Your task to perform on an android device: Show the shopping cart on amazon. Add "logitech g502" to the cart on amazon, then select checkout. Image 0: 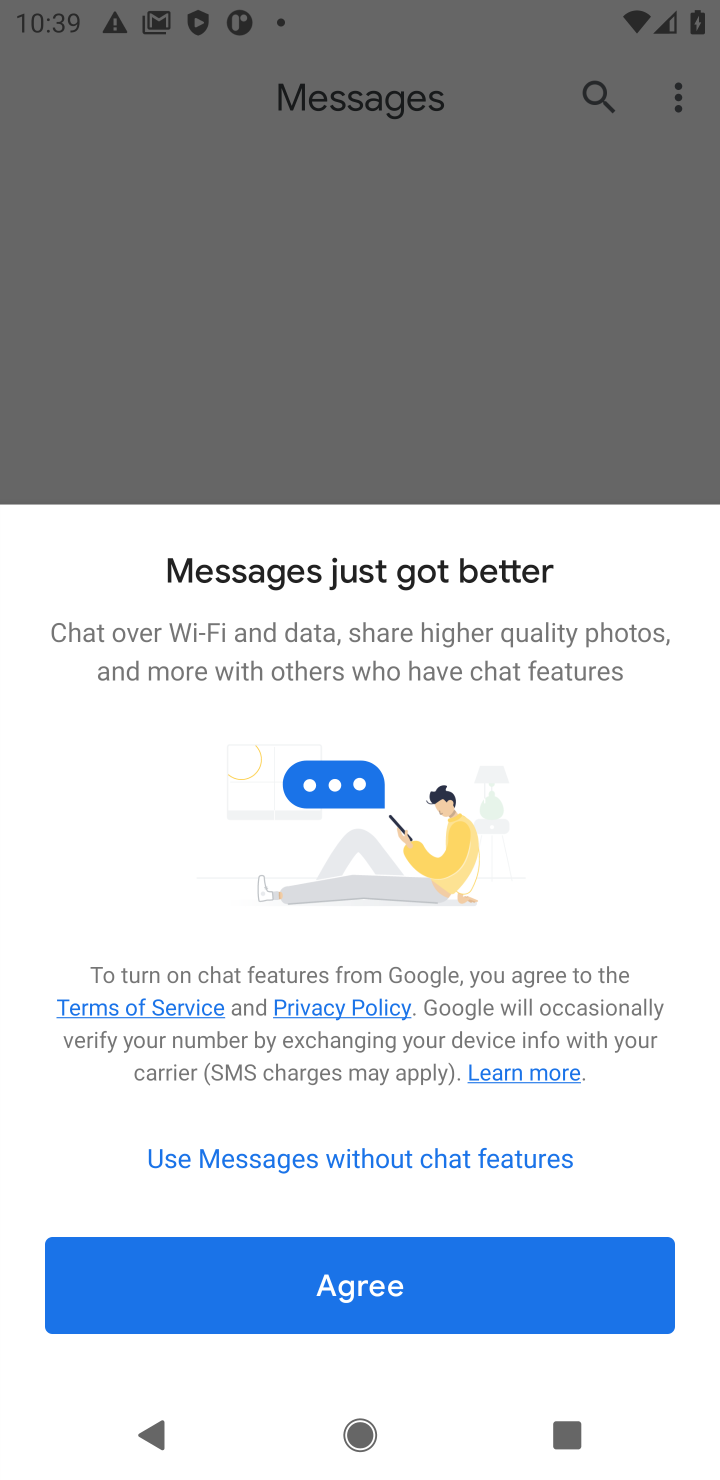
Step 0: press home button
Your task to perform on an android device: Show the shopping cart on amazon. Add "logitech g502" to the cart on amazon, then select checkout. Image 1: 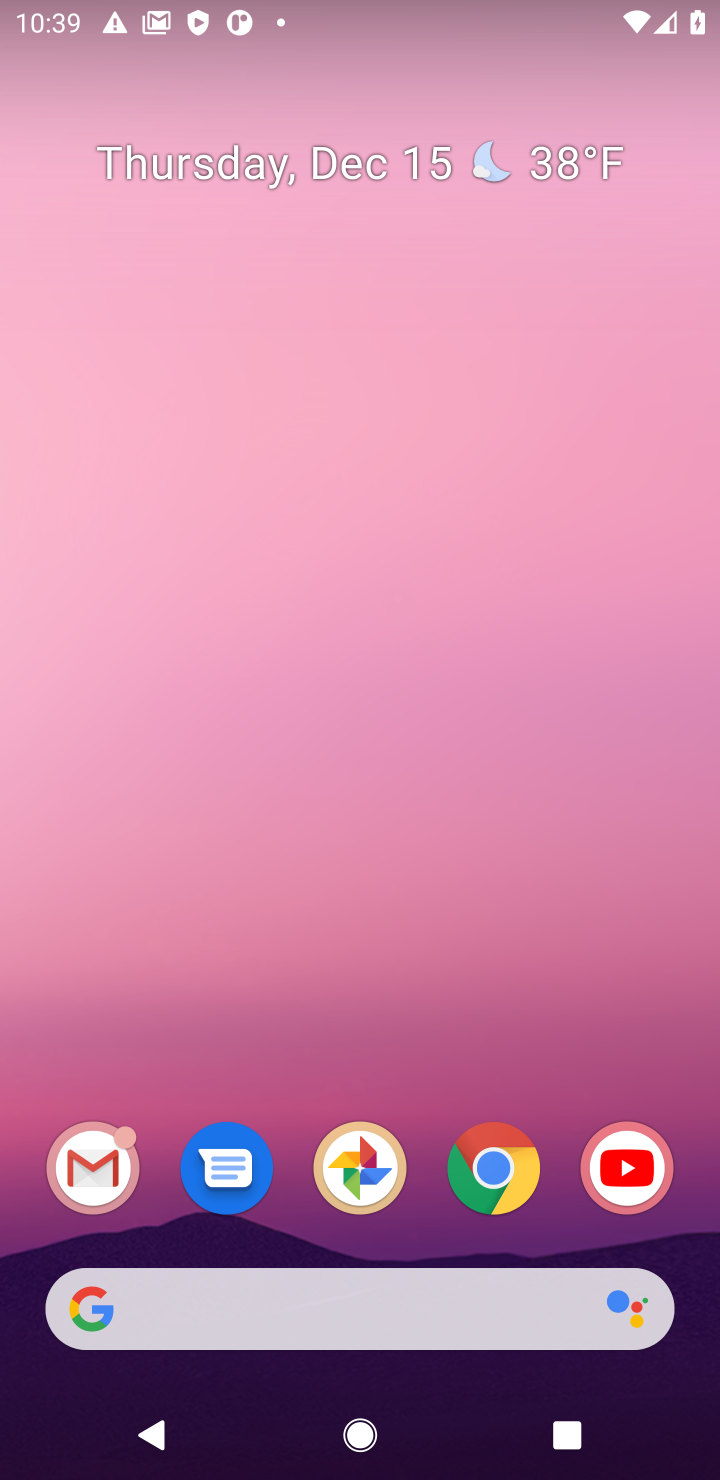
Step 1: click (488, 1182)
Your task to perform on an android device: Show the shopping cart on amazon. Add "logitech g502" to the cart on amazon, then select checkout. Image 2: 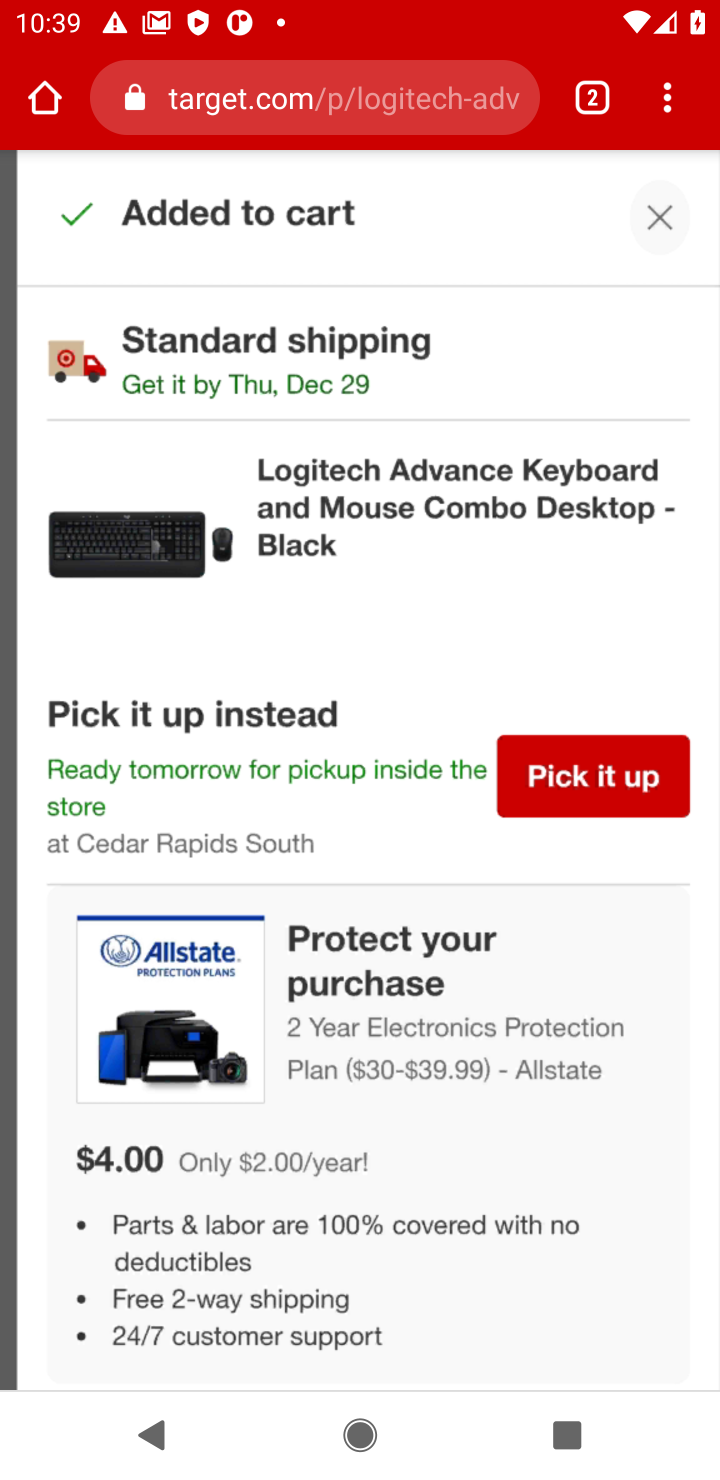
Step 2: click (381, 96)
Your task to perform on an android device: Show the shopping cart on amazon. Add "logitech g502" to the cart on amazon, then select checkout. Image 3: 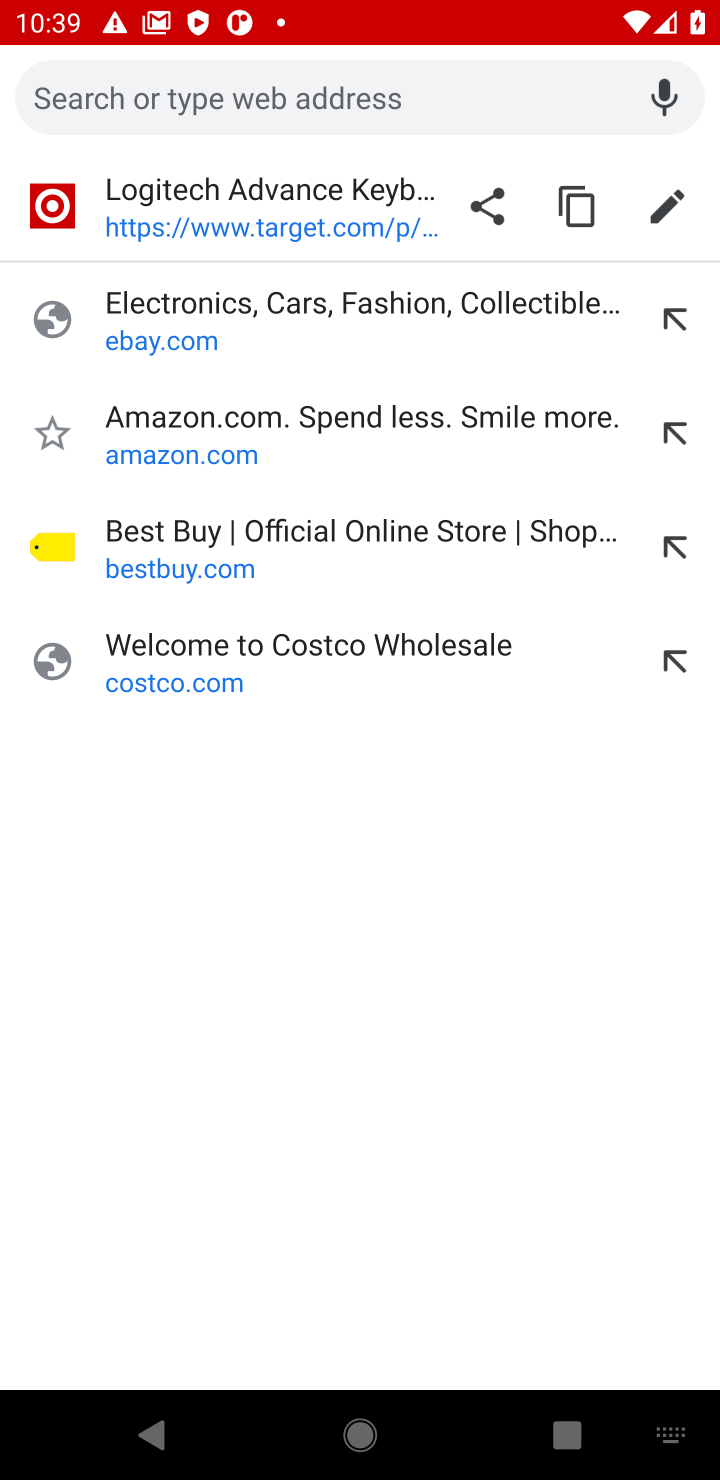
Step 3: click (267, 434)
Your task to perform on an android device: Show the shopping cart on amazon. Add "logitech g502" to the cart on amazon, then select checkout. Image 4: 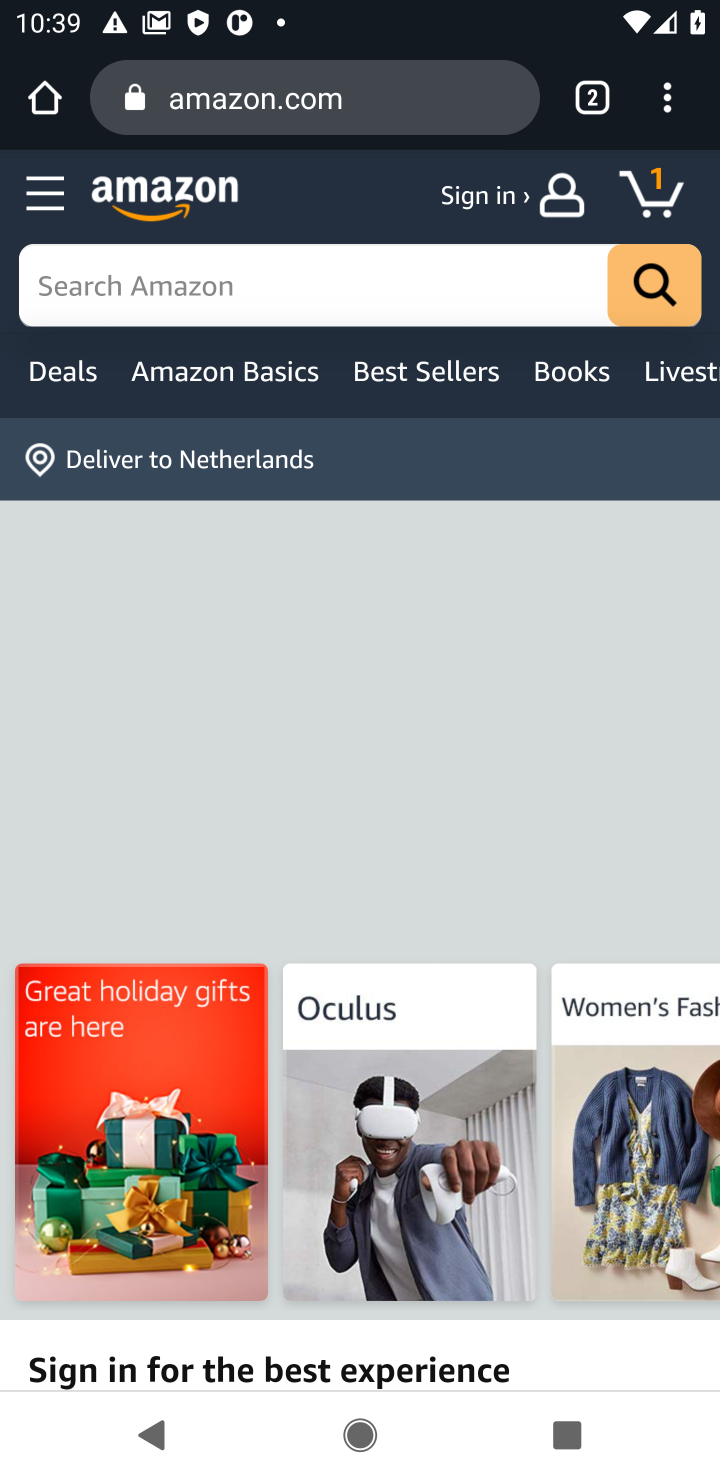
Step 4: click (358, 275)
Your task to perform on an android device: Show the shopping cart on amazon. Add "logitech g502" to the cart on amazon, then select checkout. Image 5: 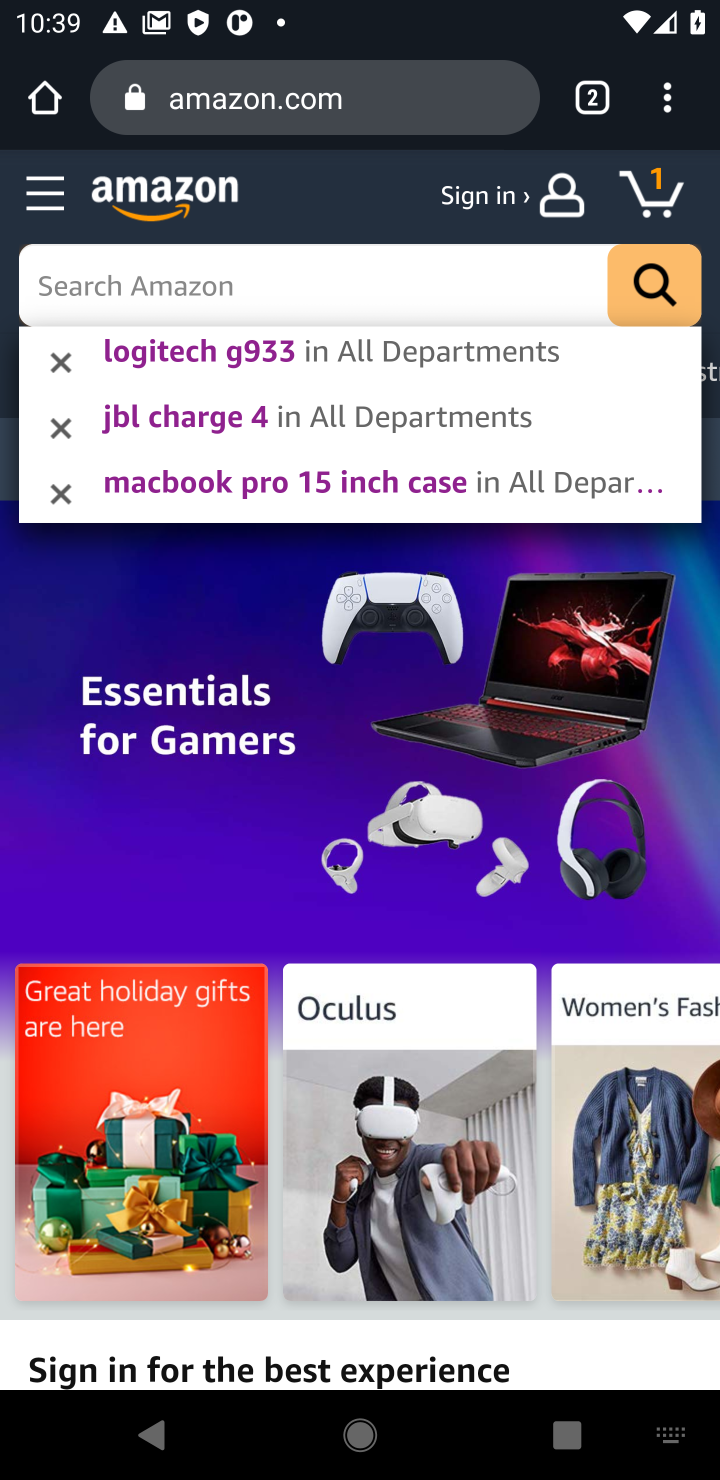
Step 5: type "logitech g502"
Your task to perform on an android device: Show the shopping cart on amazon. Add "logitech g502" to the cart on amazon, then select checkout. Image 6: 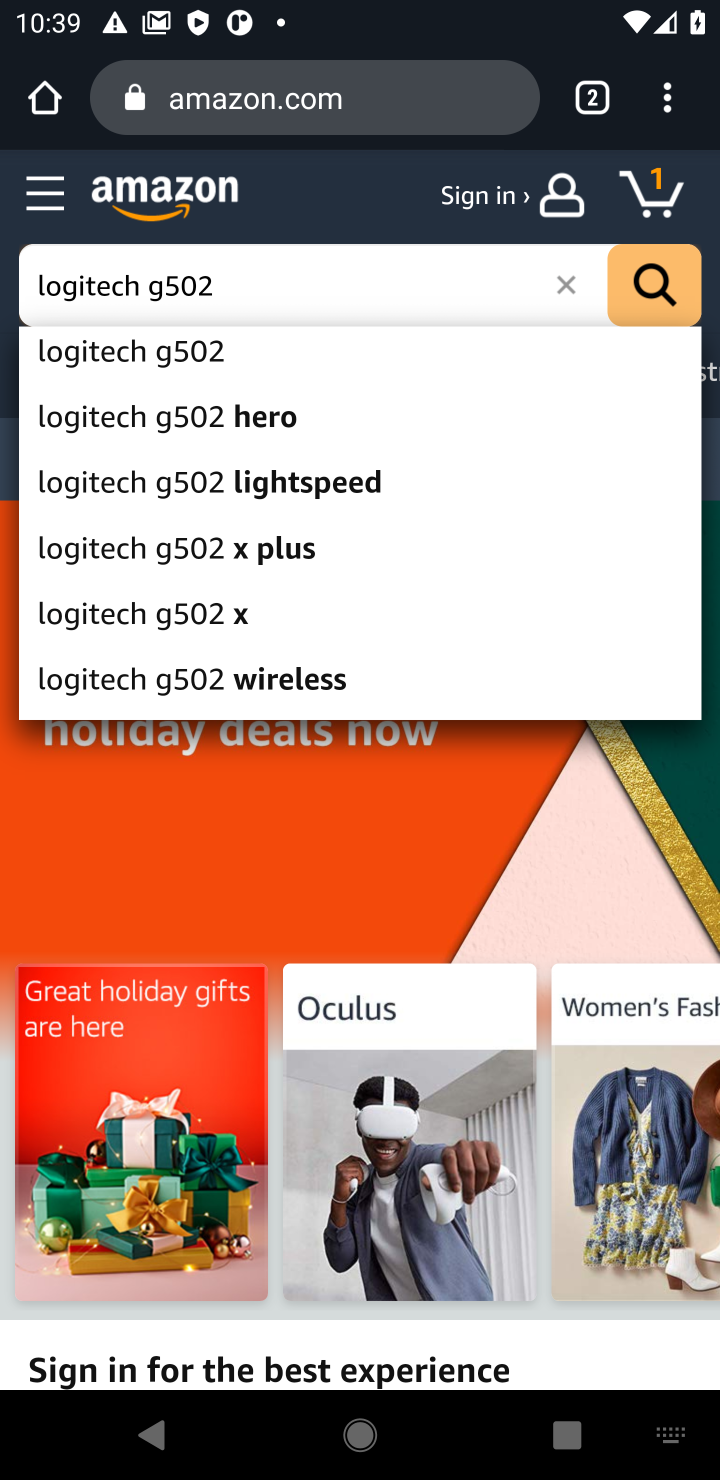
Step 6: click (194, 357)
Your task to perform on an android device: Show the shopping cart on amazon. Add "logitech g502" to the cart on amazon, then select checkout. Image 7: 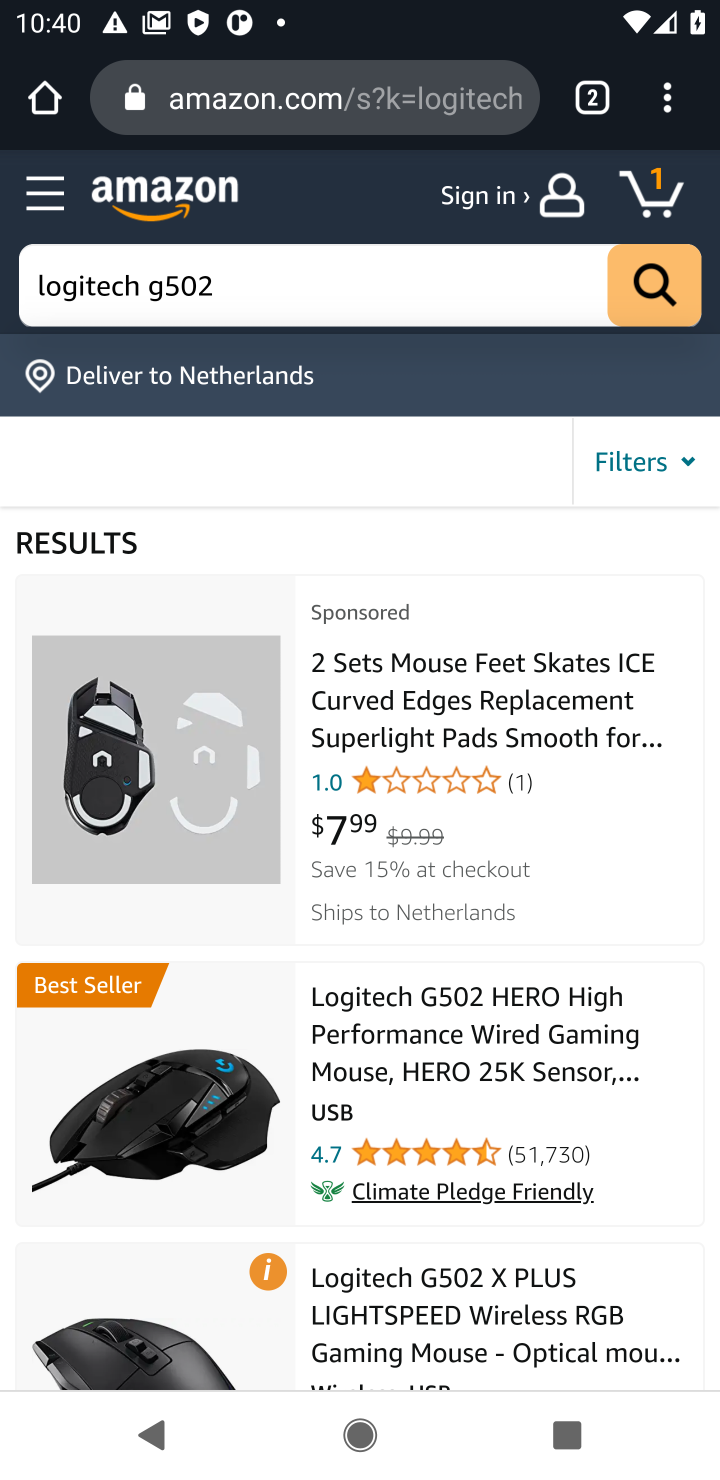
Step 7: click (563, 688)
Your task to perform on an android device: Show the shopping cart on amazon. Add "logitech g502" to the cart on amazon, then select checkout. Image 8: 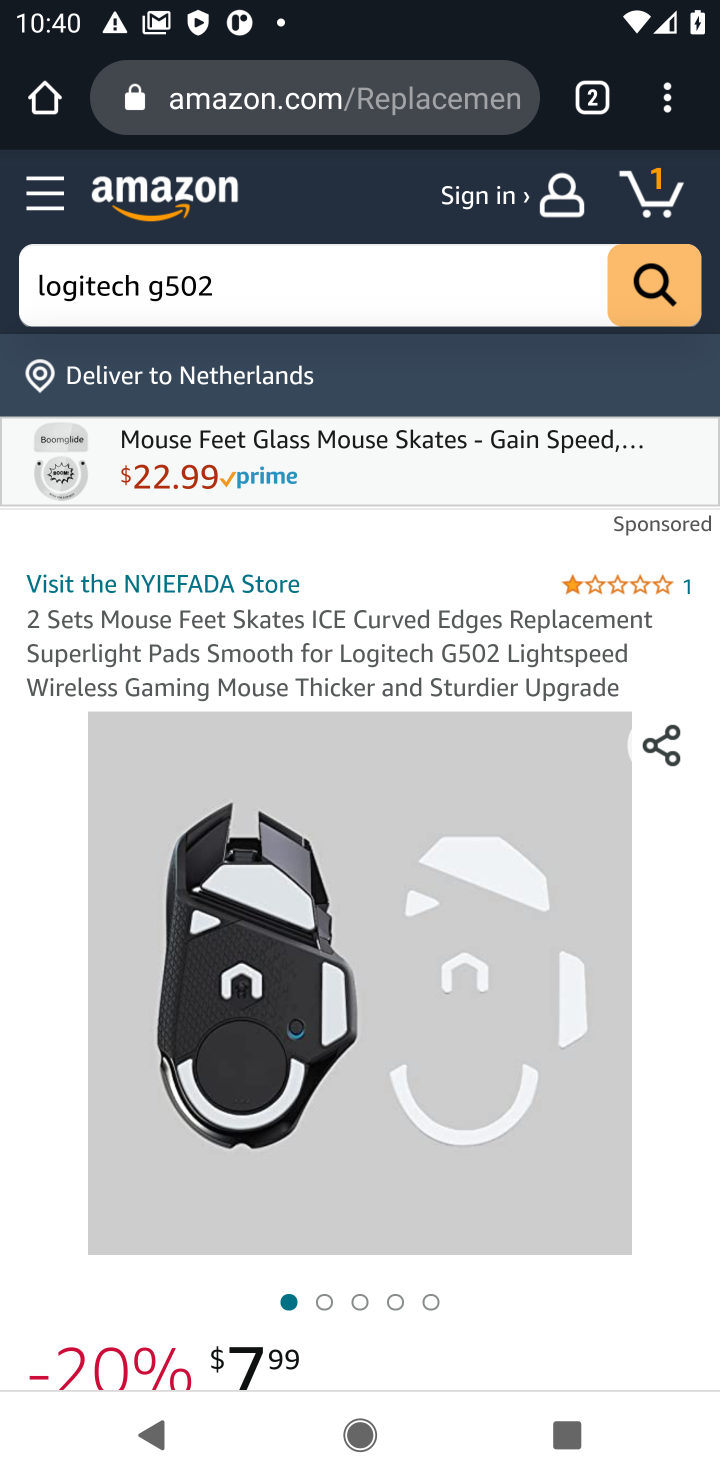
Step 8: drag from (532, 1216) to (516, 396)
Your task to perform on an android device: Show the shopping cart on amazon. Add "logitech g502" to the cart on amazon, then select checkout. Image 9: 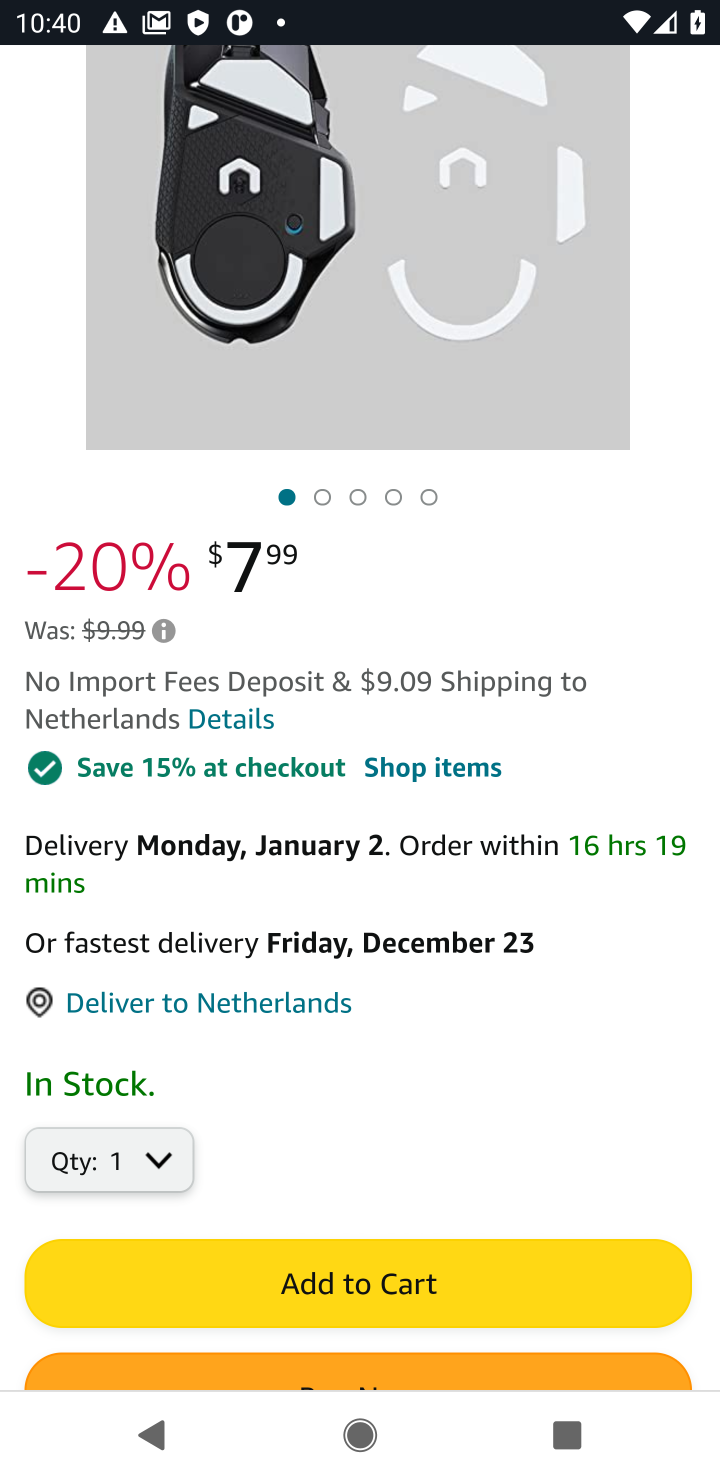
Step 9: click (394, 1282)
Your task to perform on an android device: Show the shopping cart on amazon. Add "logitech g502" to the cart on amazon, then select checkout. Image 10: 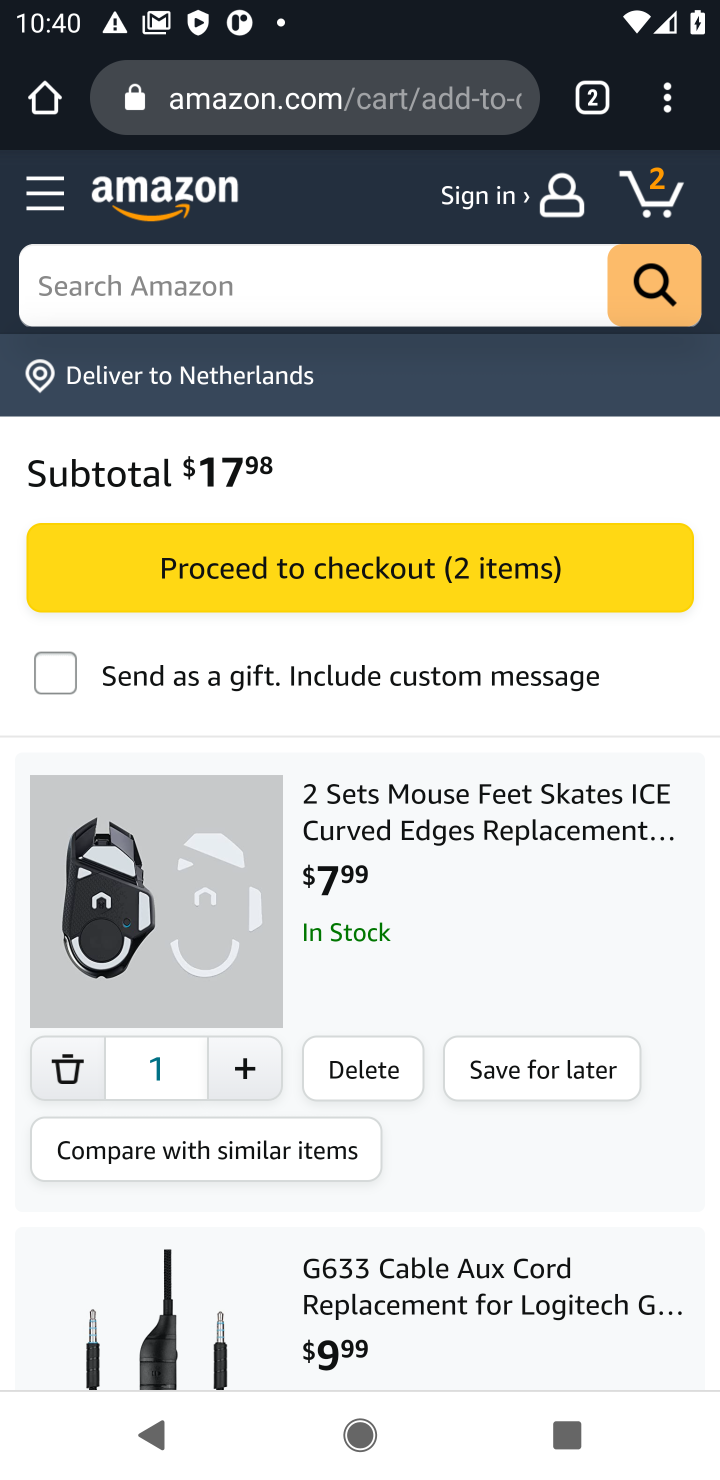
Step 10: click (68, 1066)
Your task to perform on an android device: Show the shopping cart on amazon. Add "logitech g502" to the cart on amazon, then select checkout. Image 11: 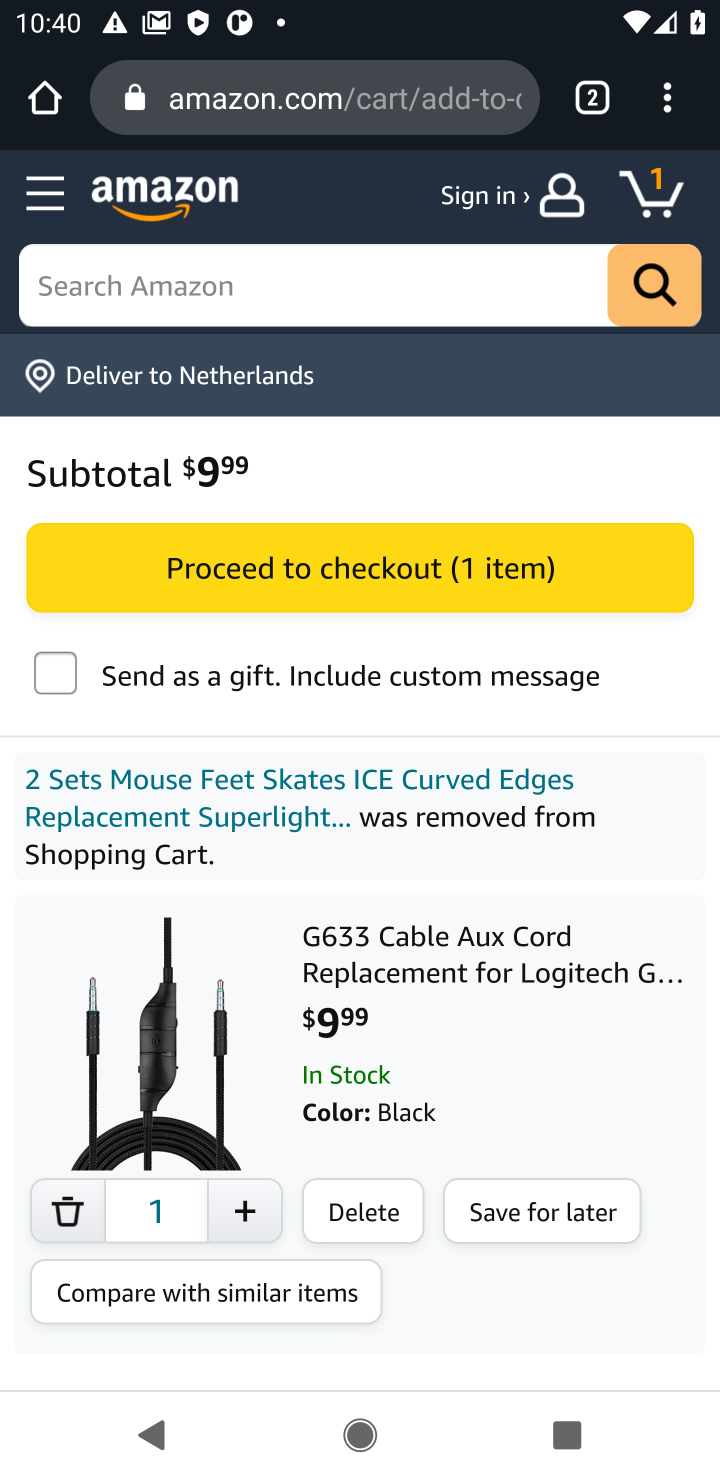
Step 11: click (420, 557)
Your task to perform on an android device: Show the shopping cart on amazon. Add "logitech g502" to the cart on amazon, then select checkout. Image 12: 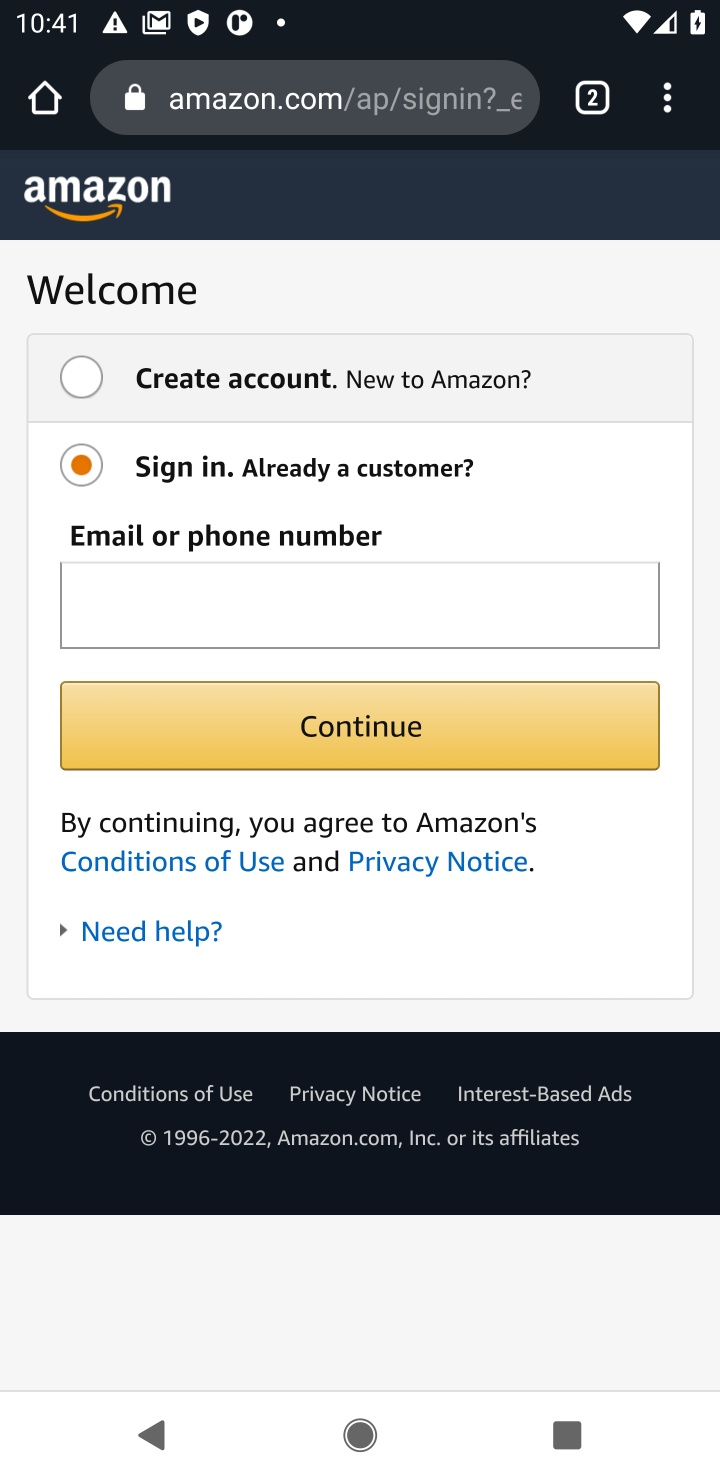
Step 12: press home button
Your task to perform on an android device: Show the shopping cart on amazon. Add "logitech g502" to the cart on amazon, then select checkout. Image 13: 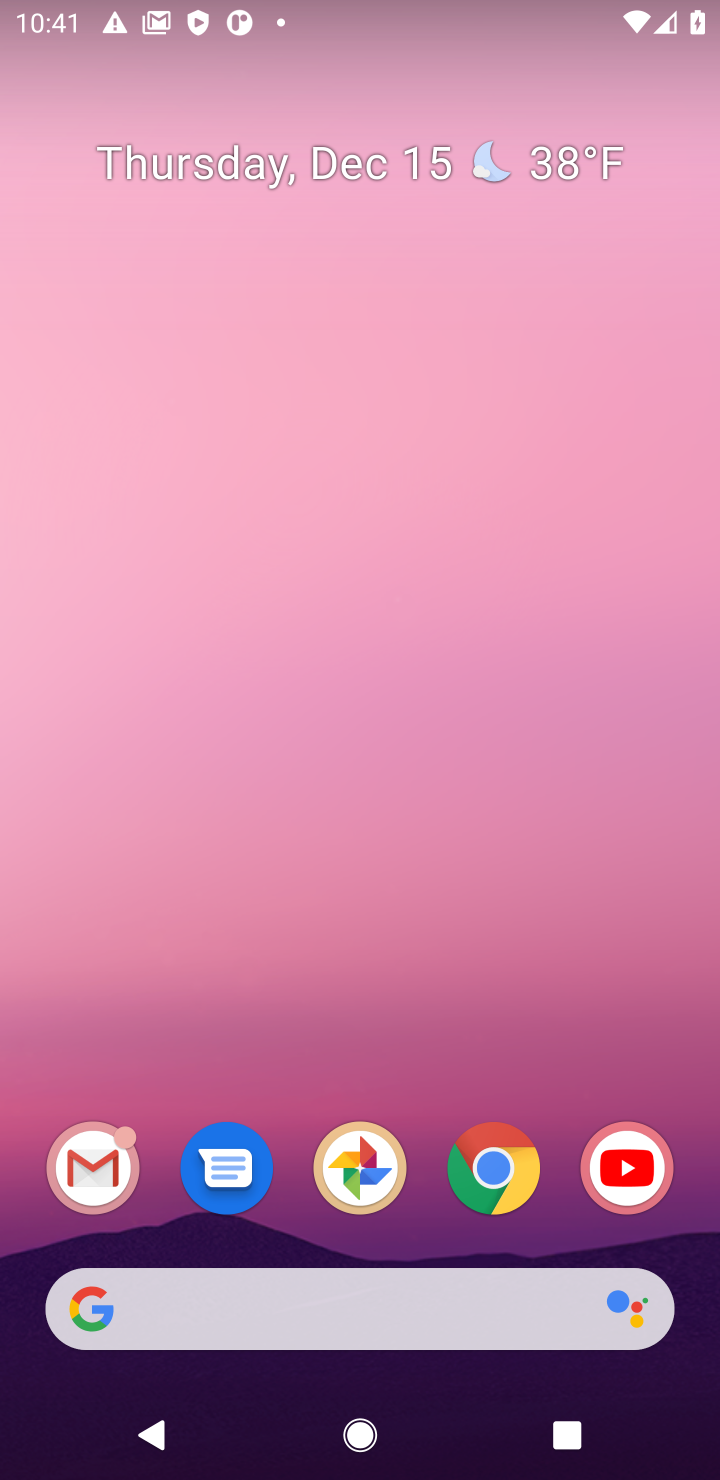
Step 13: click (503, 1162)
Your task to perform on an android device: Show the shopping cart on amazon. Add "logitech g502" to the cart on amazon, then select checkout. Image 14: 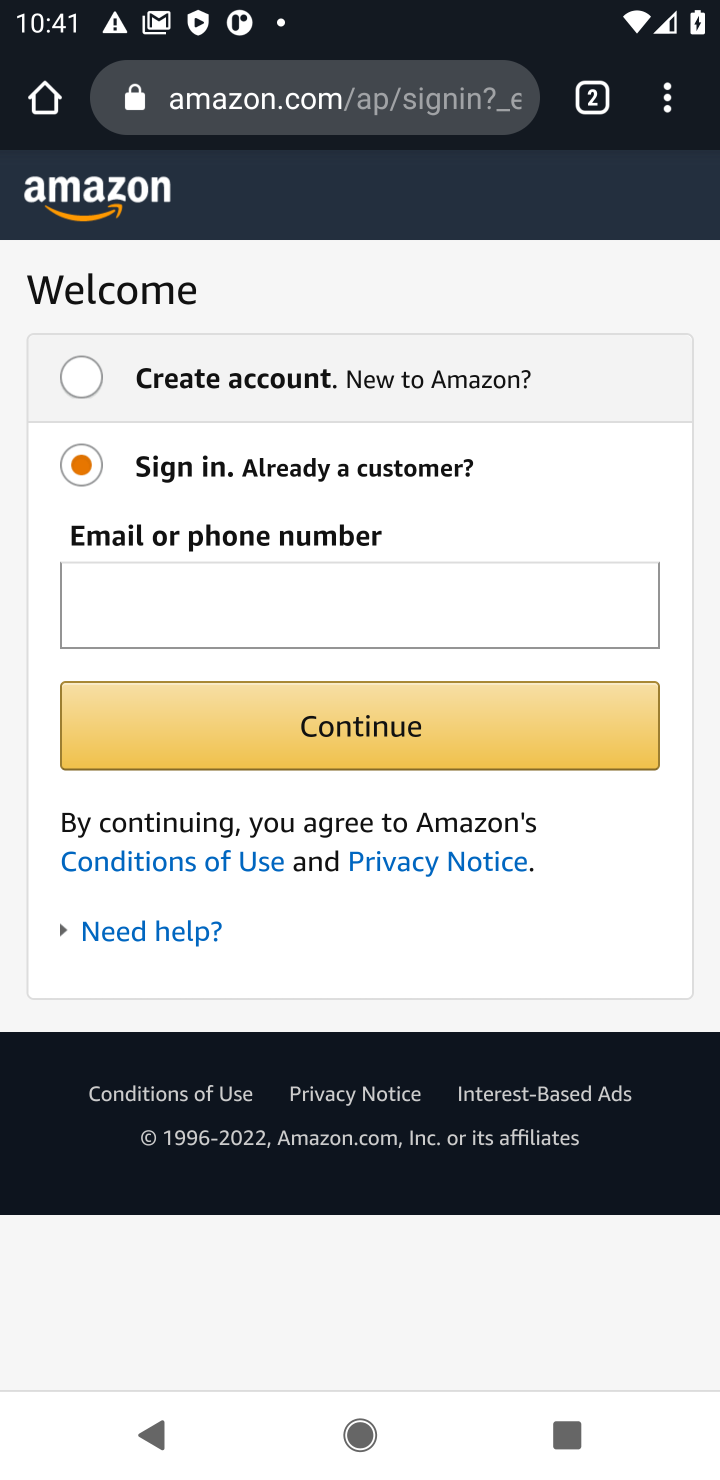
Step 14: click (354, 91)
Your task to perform on an android device: Show the shopping cart on amazon. Add "logitech g502" to the cart on amazon, then select checkout. Image 15: 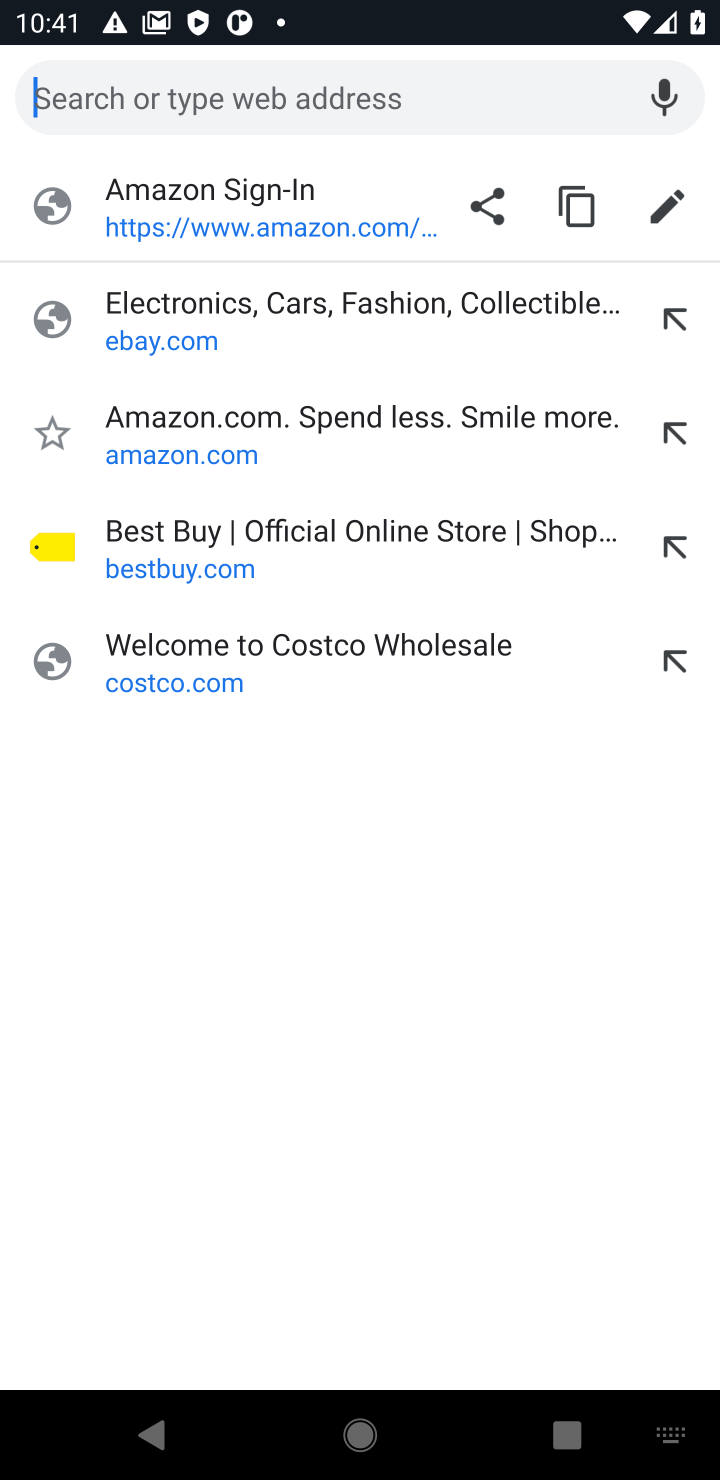
Step 15: click (265, 434)
Your task to perform on an android device: Show the shopping cart on amazon. Add "logitech g502" to the cart on amazon, then select checkout. Image 16: 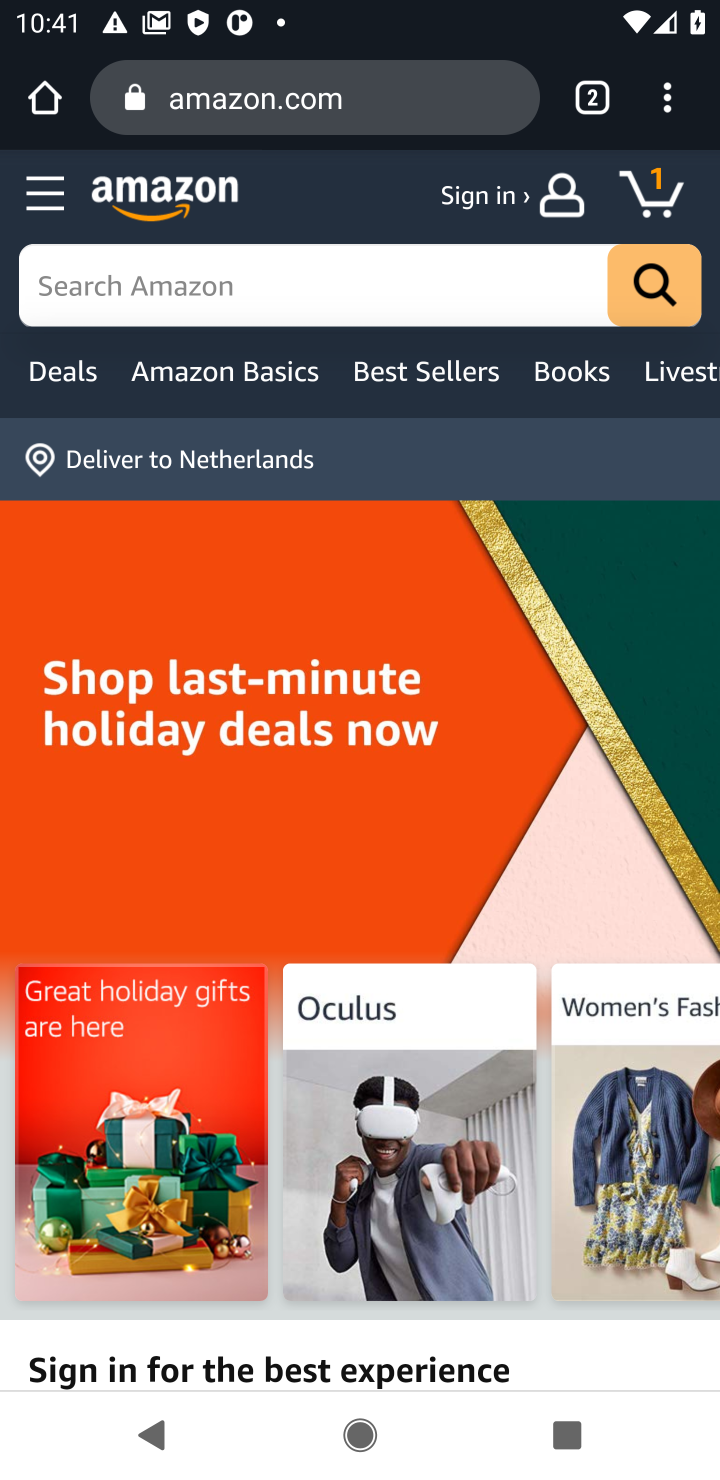
Step 16: click (374, 278)
Your task to perform on an android device: Show the shopping cart on amazon. Add "logitech g502" to the cart on amazon, then select checkout. Image 17: 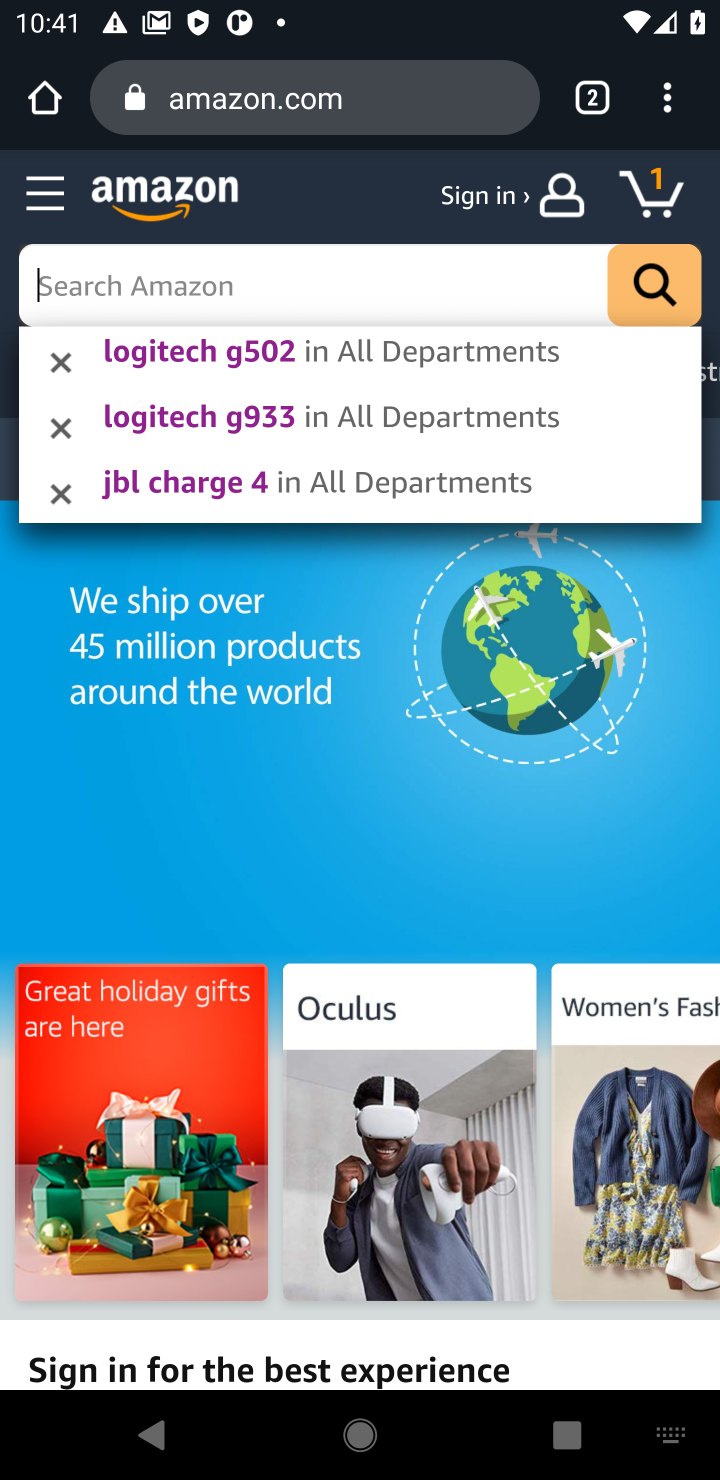
Step 17: click (315, 307)
Your task to perform on an android device: Show the shopping cart on amazon. Add "logitech g502" to the cart on amazon, then select checkout. Image 18: 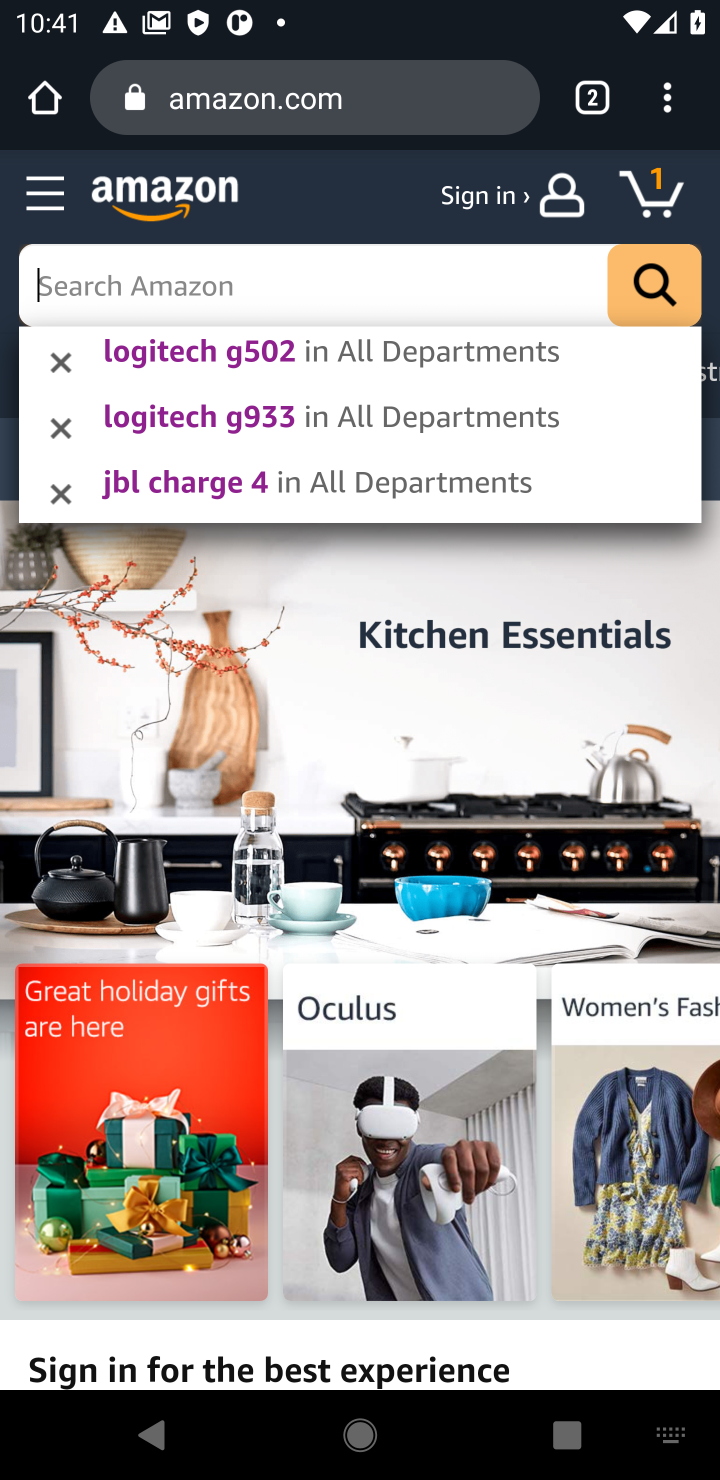
Step 18: type "logitech g502"
Your task to perform on an android device: Show the shopping cart on amazon. Add "logitech g502" to the cart on amazon, then select checkout. Image 19: 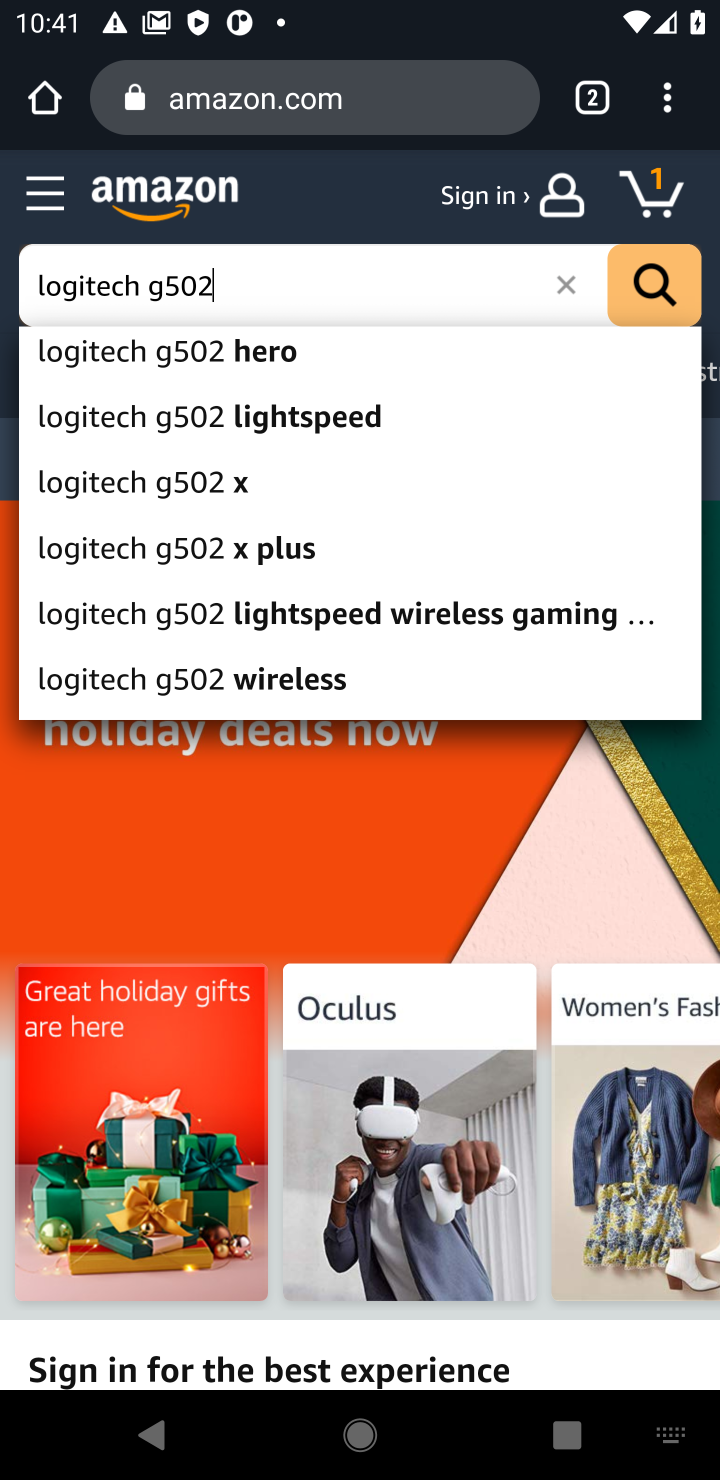
Step 19: click (100, 359)
Your task to perform on an android device: Show the shopping cart on amazon. Add "logitech g502" to the cart on amazon, then select checkout. Image 20: 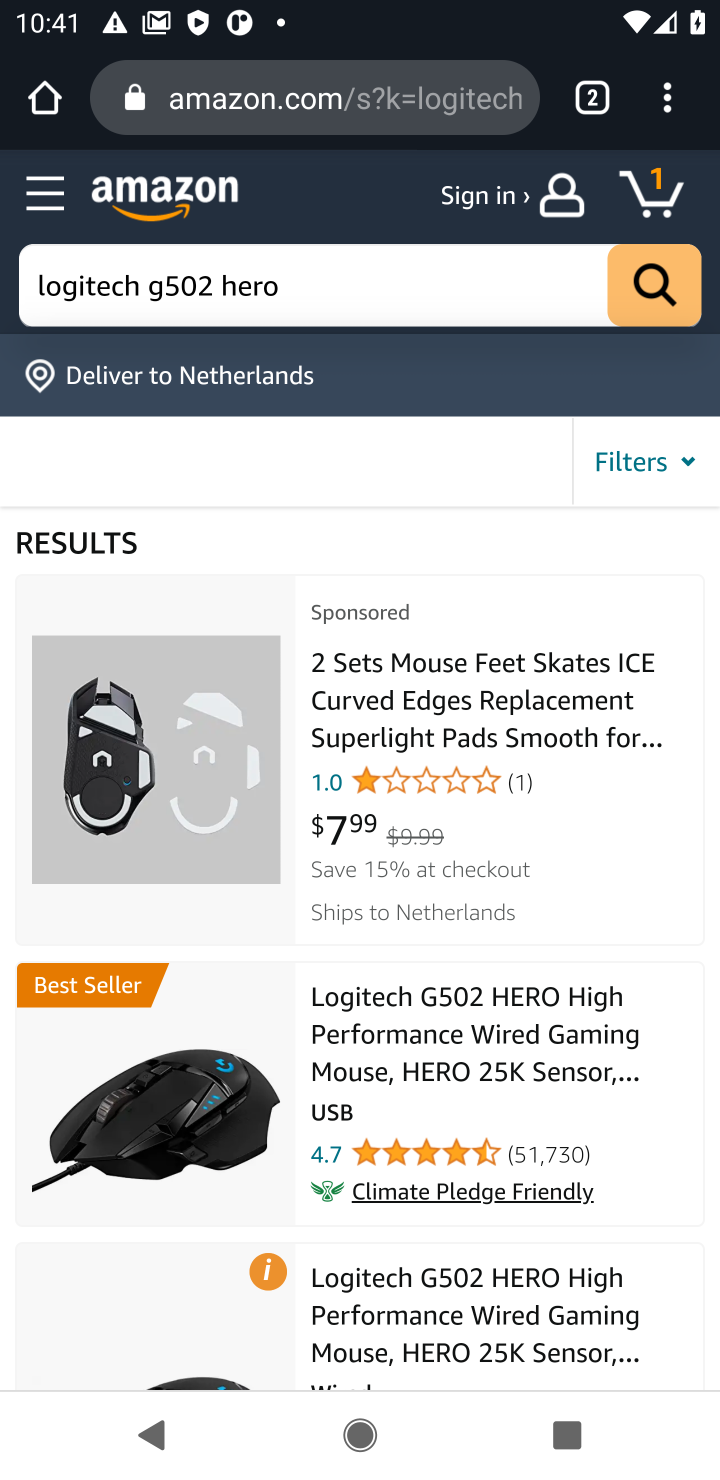
Step 20: click (532, 717)
Your task to perform on an android device: Show the shopping cart on amazon. Add "logitech g502" to the cart on amazon, then select checkout. Image 21: 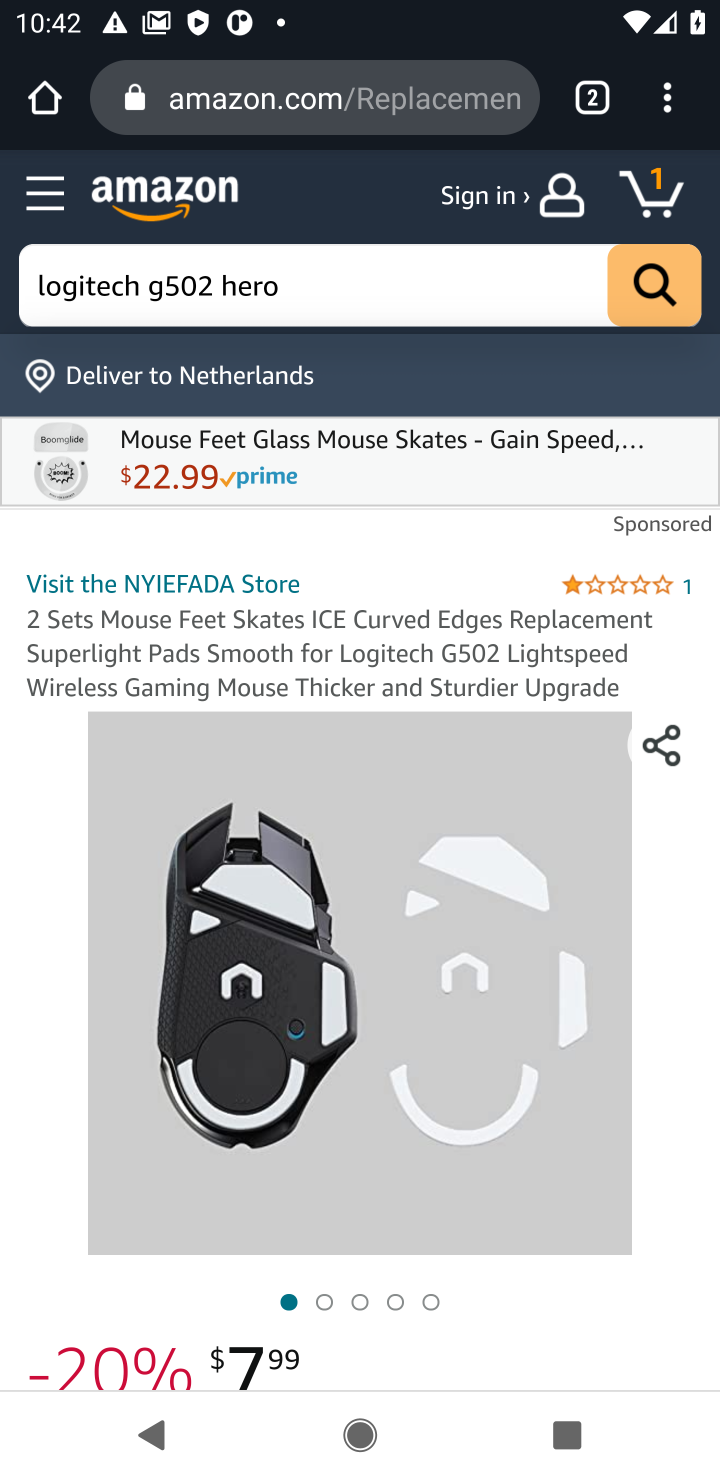
Step 21: drag from (466, 1271) to (458, 653)
Your task to perform on an android device: Show the shopping cart on amazon. Add "logitech g502" to the cart on amazon, then select checkout. Image 22: 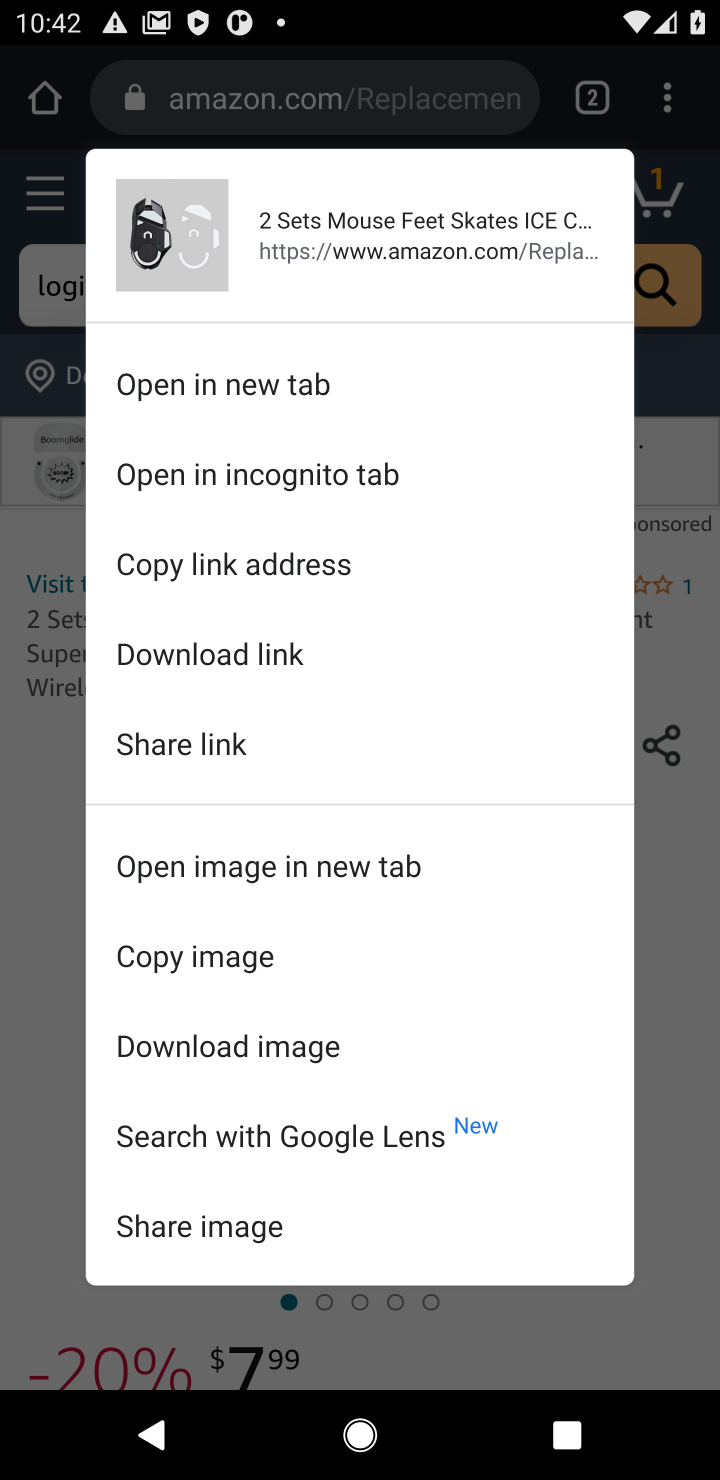
Step 22: click (624, 1272)
Your task to perform on an android device: Show the shopping cart on amazon. Add "logitech g502" to the cart on amazon, then select checkout. Image 23: 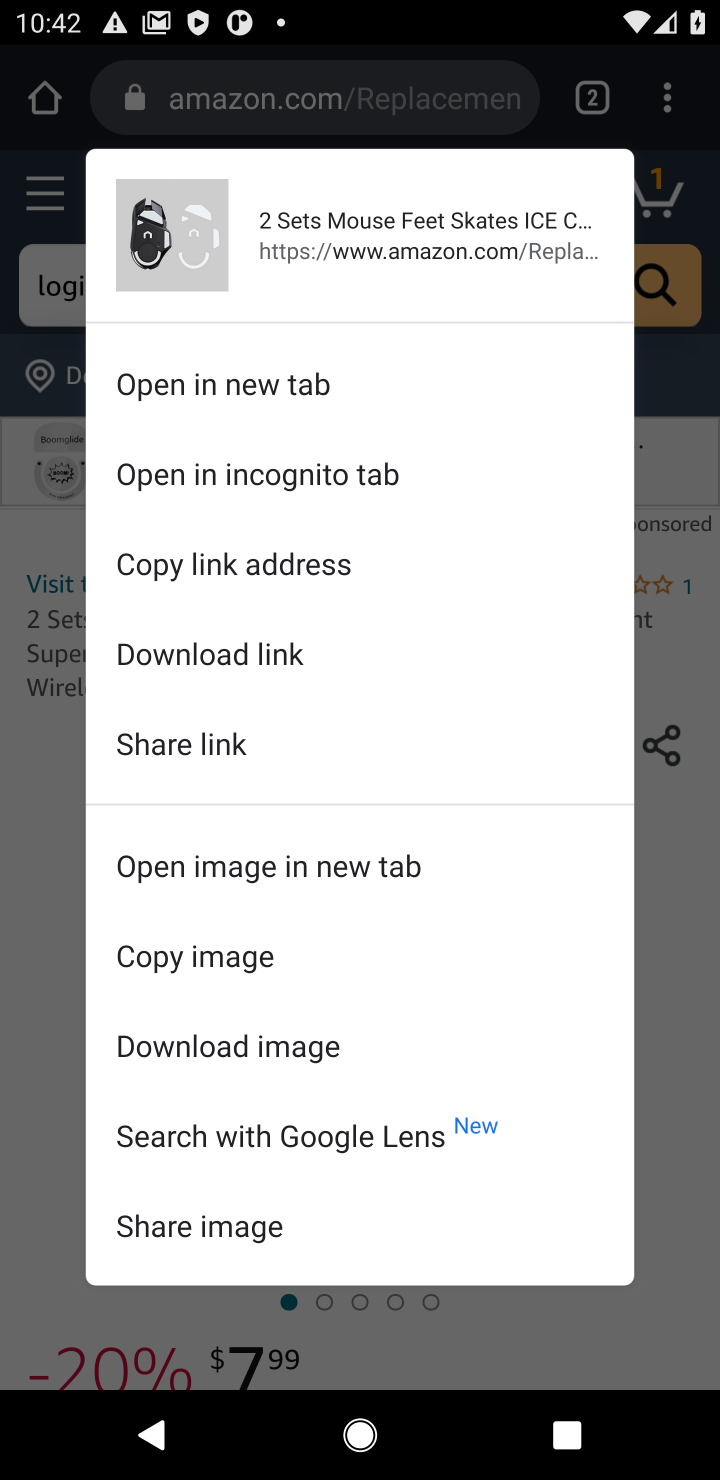
Step 23: click (633, 1325)
Your task to perform on an android device: Show the shopping cart on amazon. Add "logitech g502" to the cart on amazon, then select checkout. Image 24: 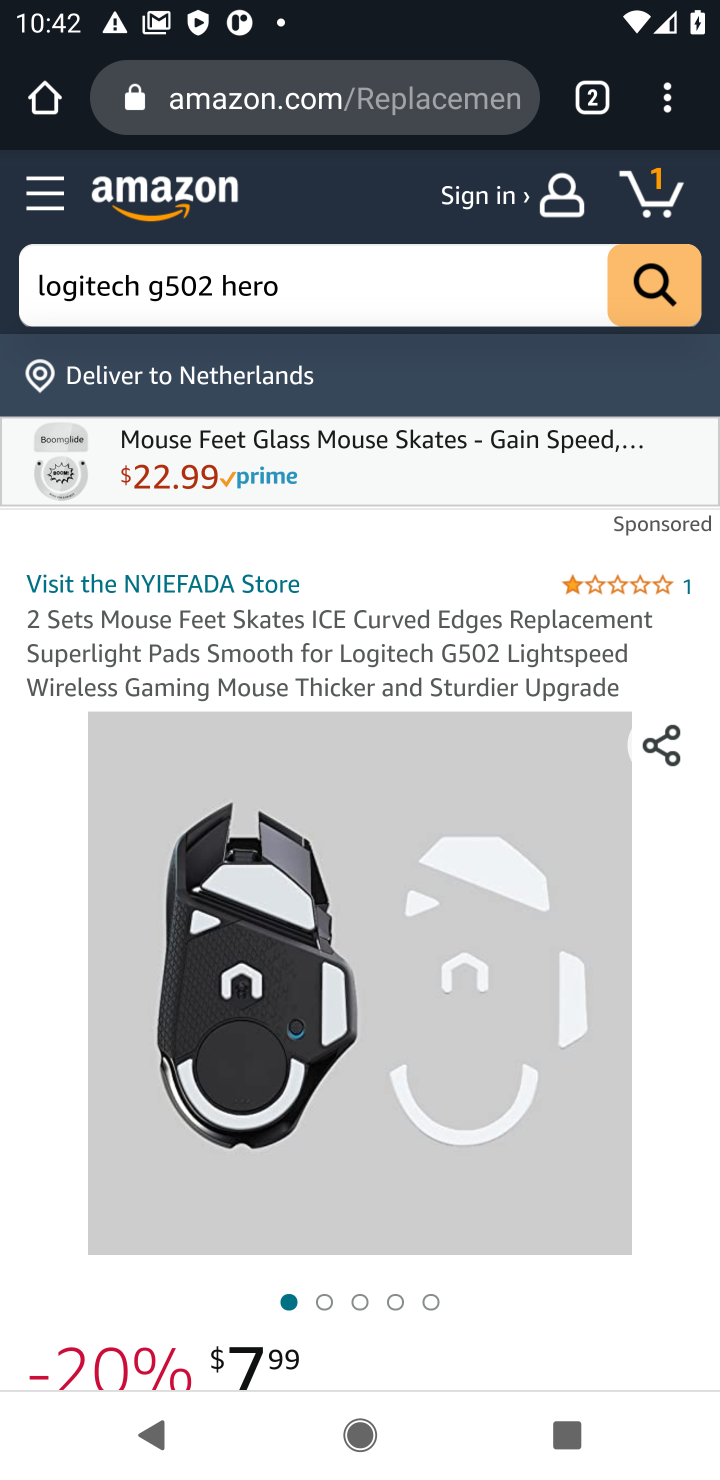
Step 24: drag from (603, 1276) to (389, 439)
Your task to perform on an android device: Show the shopping cart on amazon. Add "logitech g502" to the cart on amazon, then select checkout. Image 25: 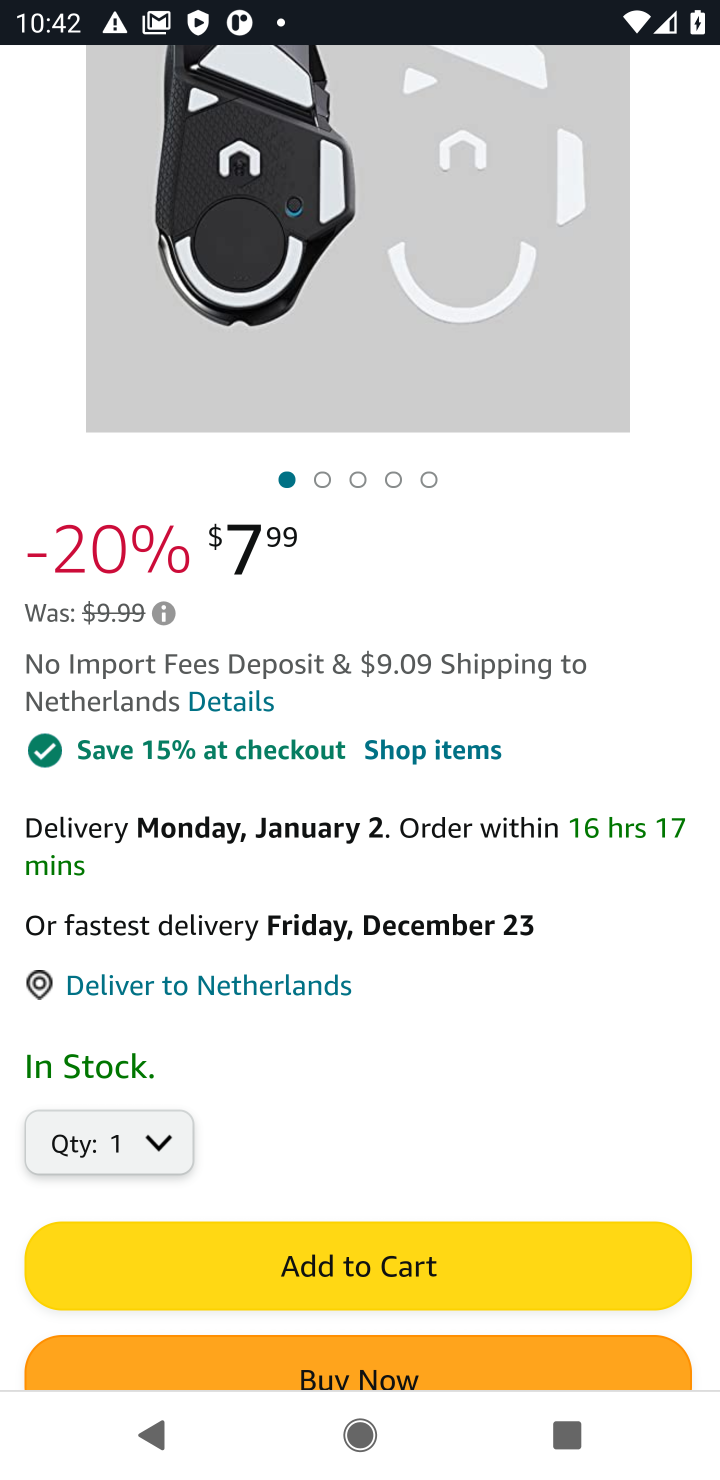
Step 25: click (383, 1242)
Your task to perform on an android device: Show the shopping cart on amazon. Add "logitech g502" to the cart on amazon, then select checkout. Image 26: 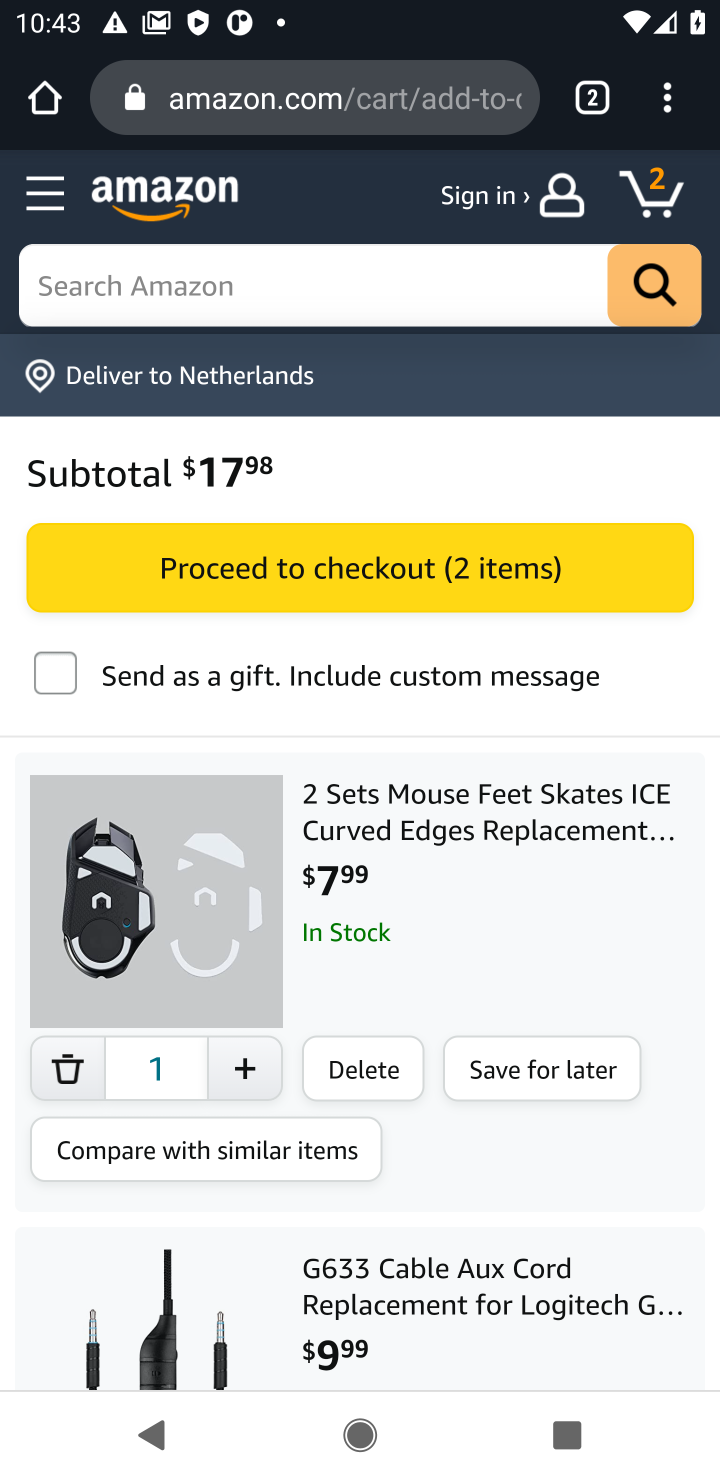
Step 26: click (365, 566)
Your task to perform on an android device: Show the shopping cart on amazon. Add "logitech g502" to the cart on amazon, then select checkout. Image 27: 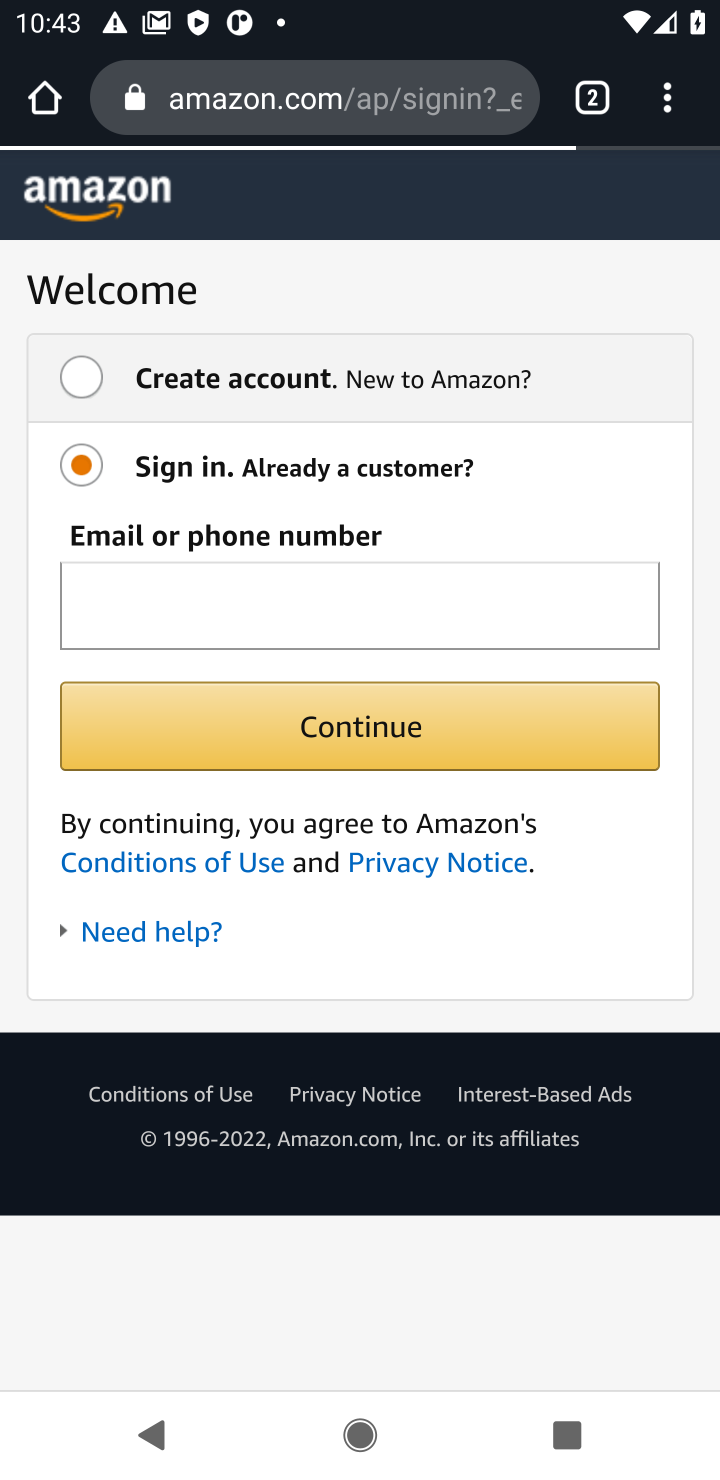
Step 27: task complete